Your task to perform on an android device: Is it going to rain today? Image 0: 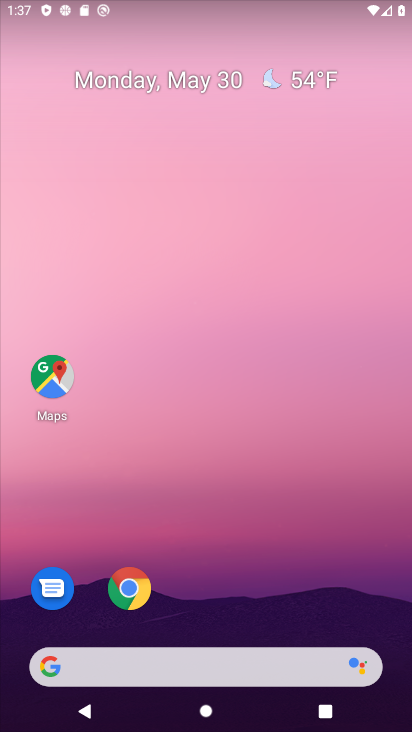
Step 0: click (318, 84)
Your task to perform on an android device: Is it going to rain today? Image 1: 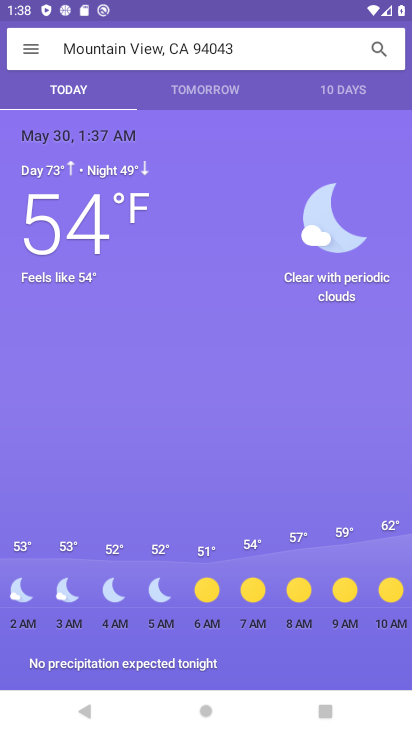
Step 1: task complete